Your task to perform on an android device: delete browsing data in the chrome app Image 0: 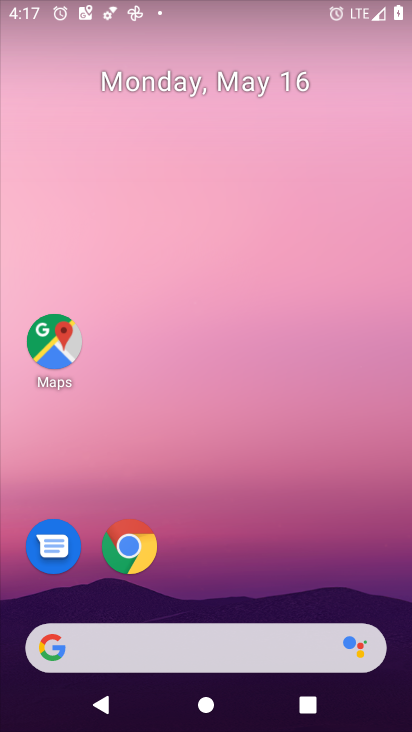
Step 0: drag from (359, 570) to (379, 100)
Your task to perform on an android device: delete browsing data in the chrome app Image 1: 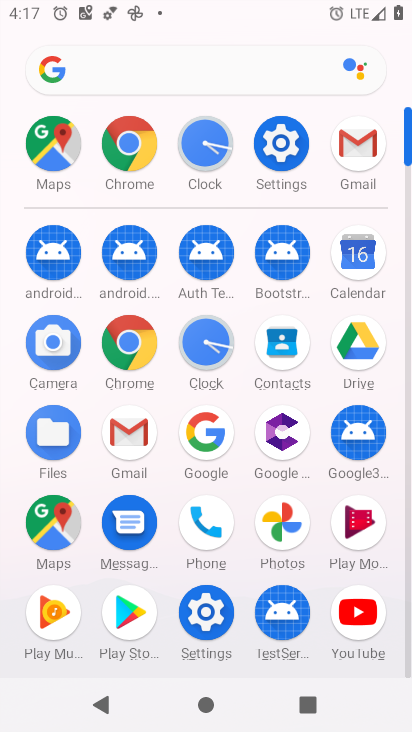
Step 1: click (125, 370)
Your task to perform on an android device: delete browsing data in the chrome app Image 2: 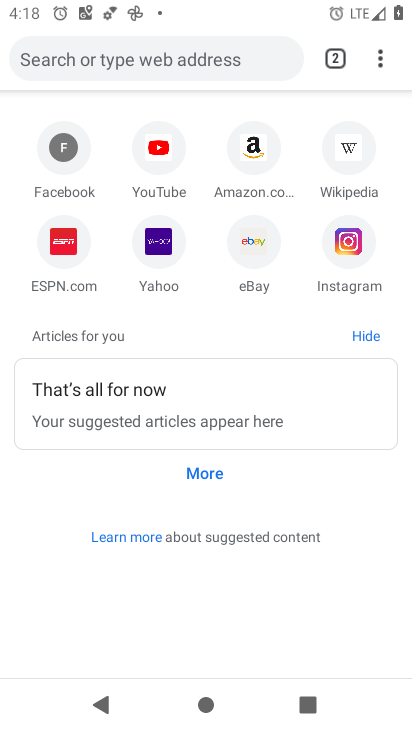
Step 2: click (383, 66)
Your task to perform on an android device: delete browsing data in the chrome app Image 3: 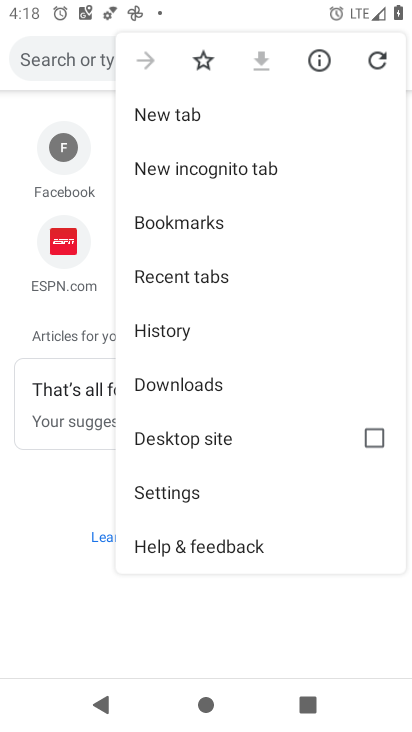
Step 3: click (190, 494)
Your task to perform on an android device: delete browsing data in the chrome app Image 4: 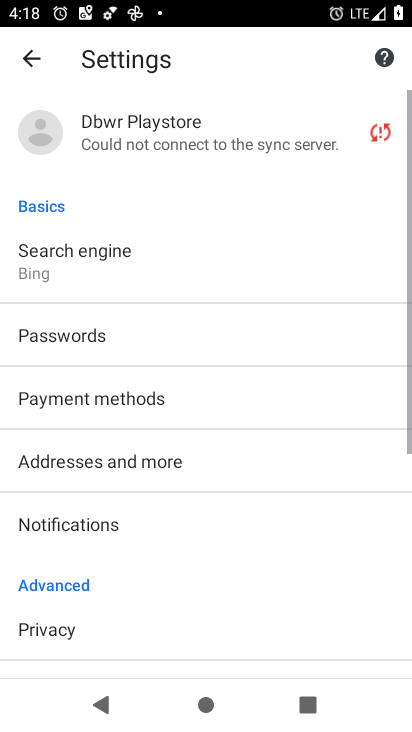
Step 4: drag from (259, 586) to (258, 449)
Your task to perform on an android device: delete browsing data in the chrome app Image 5: 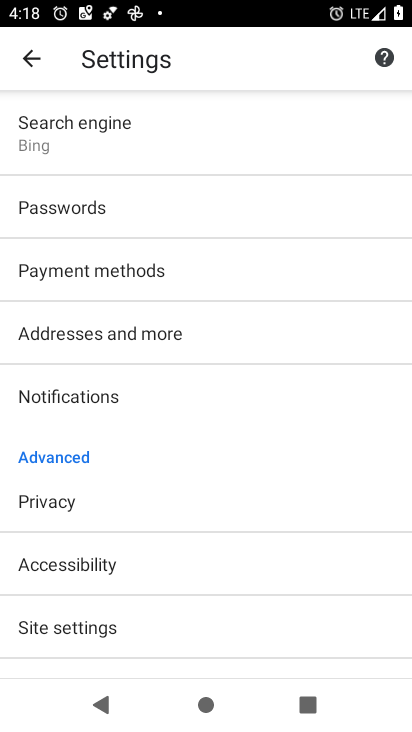
Step 5: drag from (250, 634) to (285, 437)
Your task to perform on an android device: delete browsing data in the chrome app Image 6: 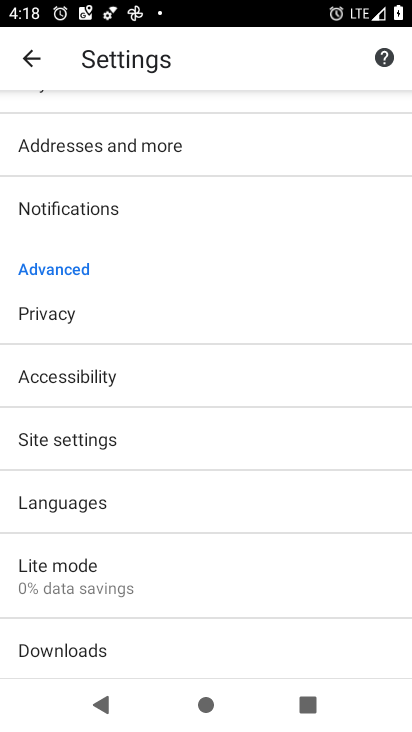
Step 6: drag from (221, 628) to (232, 446)
Your task to perform on an android device: delete browsing data in the chrome app Image 7: 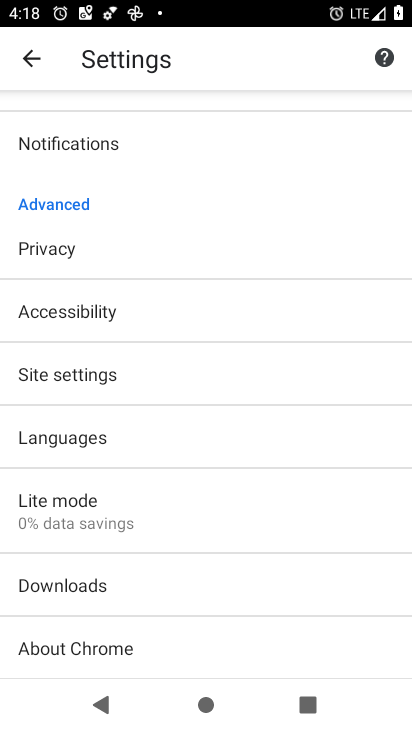
Step 7: drag from (228, 627) to (252, 473)
Your task to perform on an android device: delete browsing data in the chrome app Image 8: 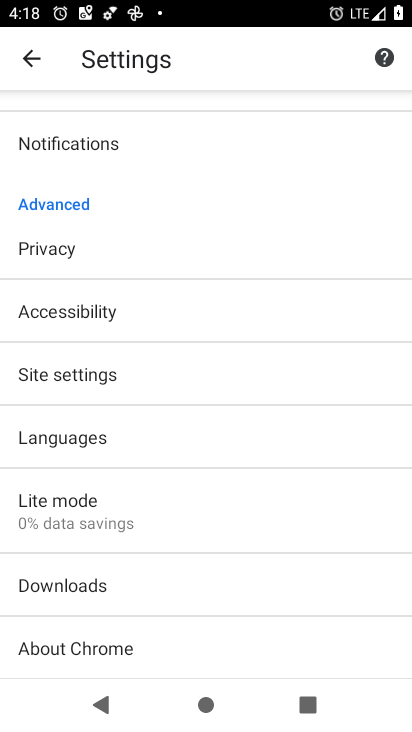
Step 8: drag from (254, 291) to (248, 417)
Your task to perform on an android device: delete browsing data in the chrome app Image 9: 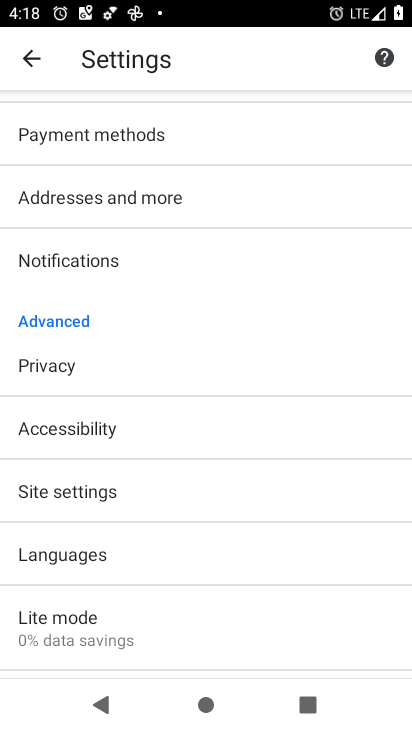
Step 9: click (67, 363)
Your task to perform on an android device: delete browsing data in the chrome app Image 10: 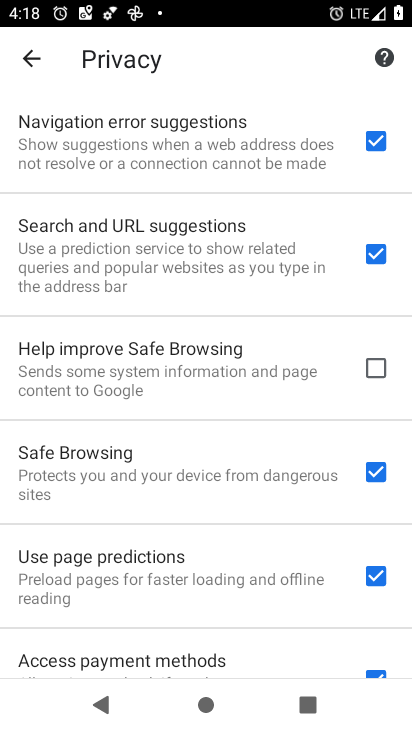
Step 10: drag from (264, 634) to (268, 485)
Your task to perform on an android device: delete browsing data in the chrome app Image 11: 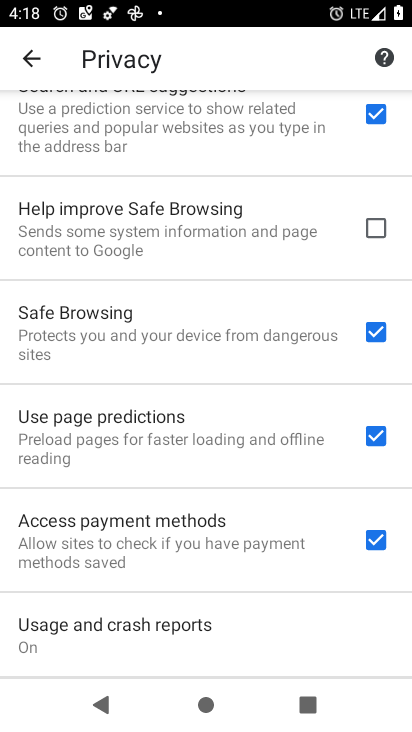
Step 11: drag from (264, 649) to (263, 526)
Your task to perform on an android device: delete browsing data in the chrome app Image 12: 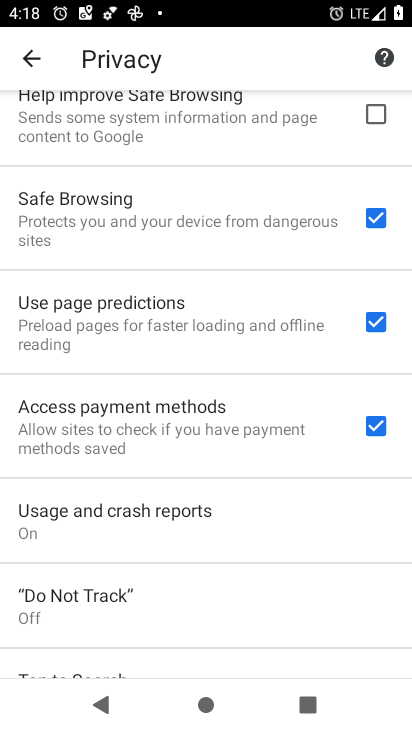
Step 12: drag from (247, 633) to (246, 510)
Your task to perform on an android device: delete browsing data in the chrome app Image 13: 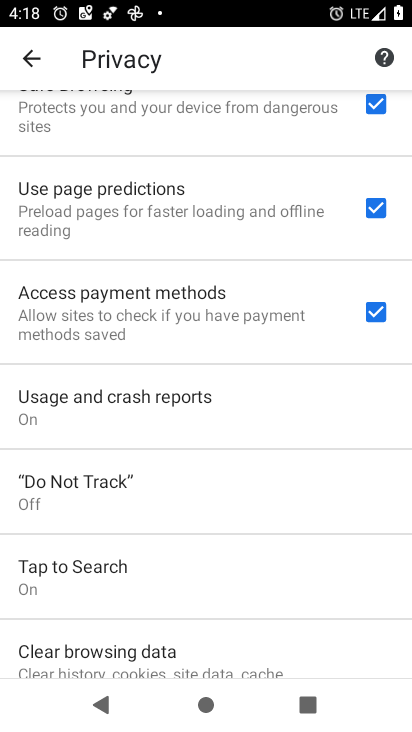
Step 13: drag from (223, 612) to (233, 517)
Your task to perform on an android device: delete browsing data in the chrome app Image 14: 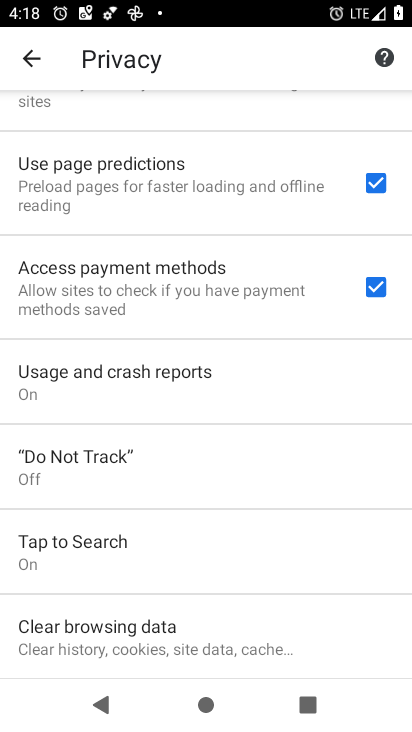
Step 14: drag from (310, 603) to (298, 488)
Your task to perform on an android device: delete browsing data in the chrome app Image 15: 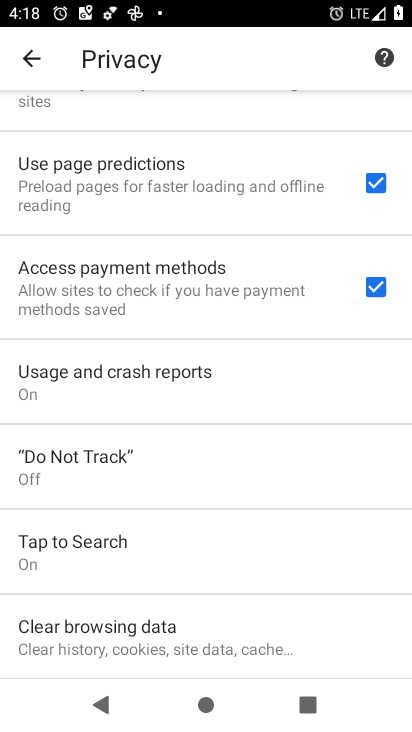
Step 15: click (198, 637)
Your task to perform on an android device: delete browsing data in the chrome app Image 16: 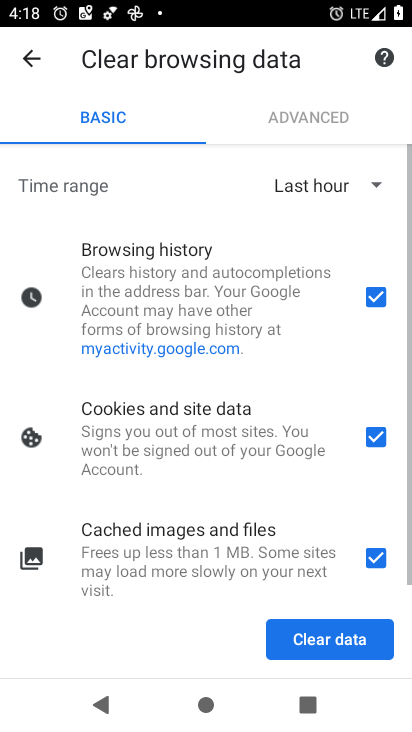
Step 16: click (323, 638)
Your task to perform on an android device: delete browsing data in the chrome app Image 17: 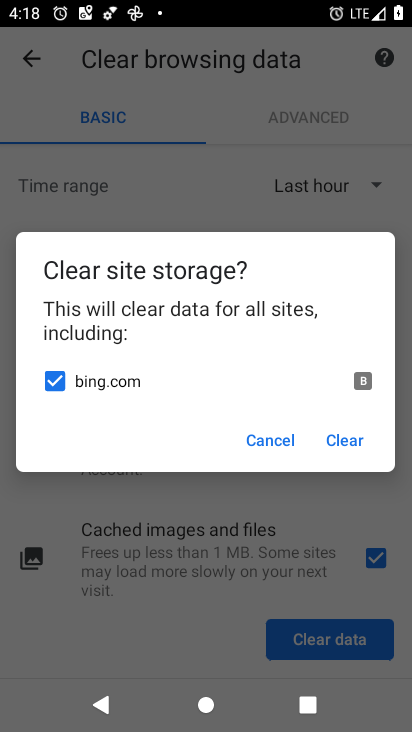
Step 17: click (318, 446)
Your task to perform on an android device: delete browsing data in the chrome app Image 18: 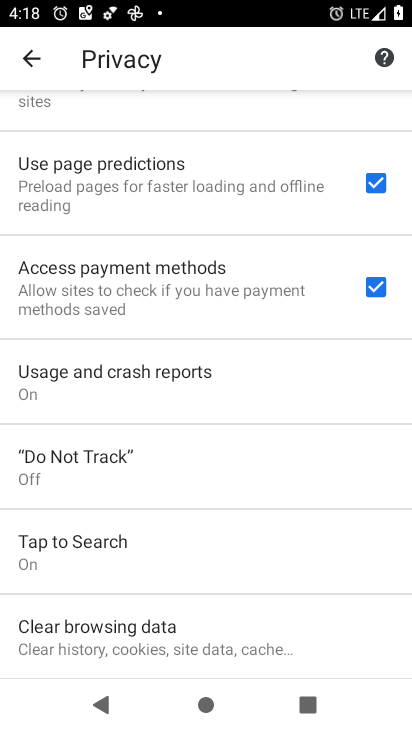
Step 18: task complete